Your task to perform on an android device: find snoozed emails in the gmail app Image 0: 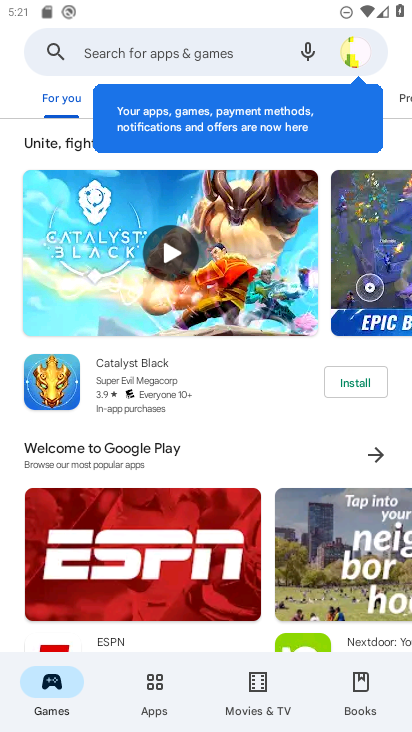
Step 0: press home button
Your task to perform on an android device: find snoozed emails in the gmail app Image 1: 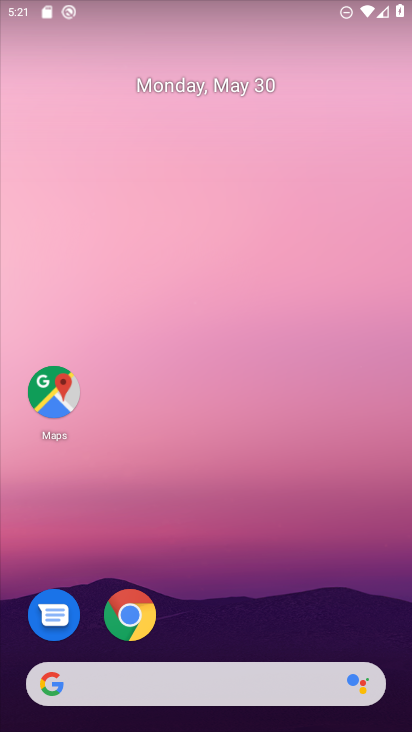
Step 1: drag from (269, 709) to (256, 209)
Your task to perform on an android device: find snoozed emails in the gmail app Image 2: 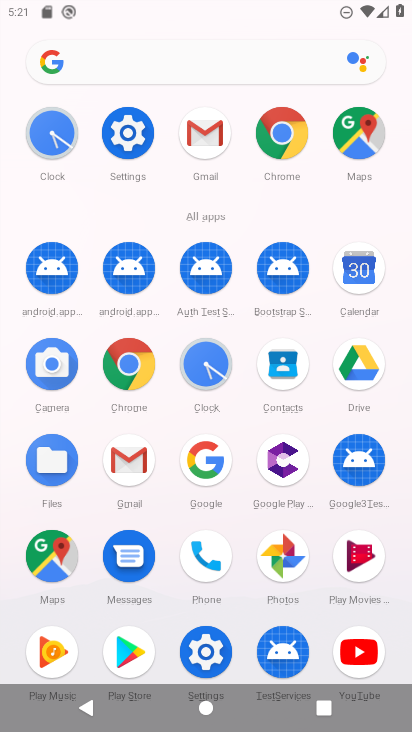
Step 2: click (201, 130)
Your task to perform on an android device: find snoozed emails in the gmail app Image 3: 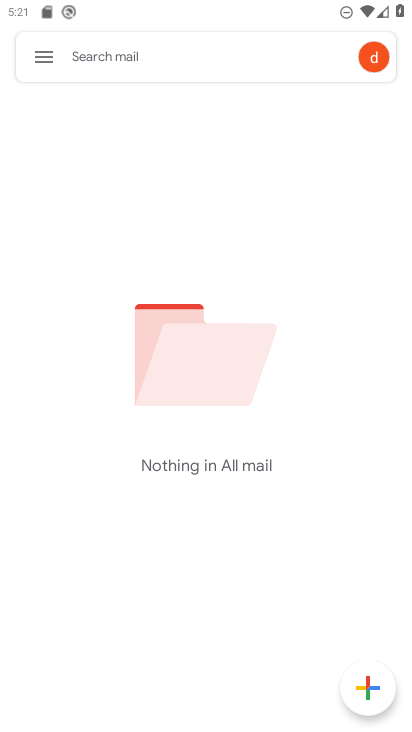
Step 3: click (39, 42)
Your task to perform on an android device: find snoozed emails in the gmail app Image 4: 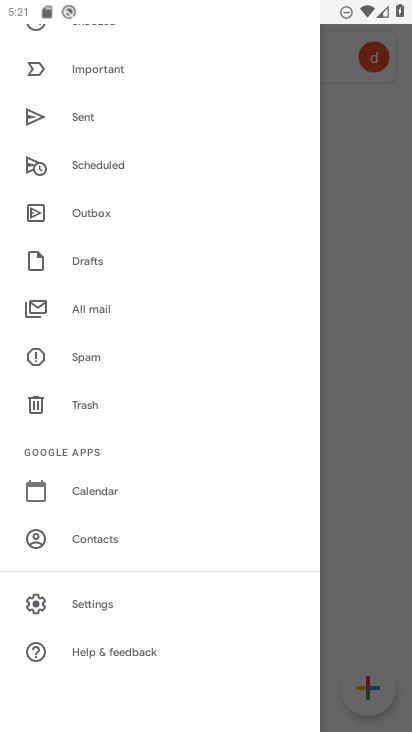
Step 4: drag from (173, 99) to (292, 548)
Your task to perform on an android device: find snoozed emails in the gmail app Image 5: 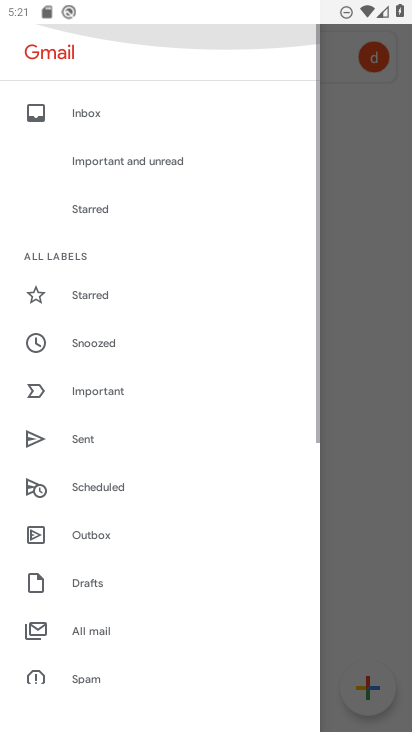
Step 5: click (292, 548)
Your task to perform on an android device: find snoozed emails in the gmail app Image 6: 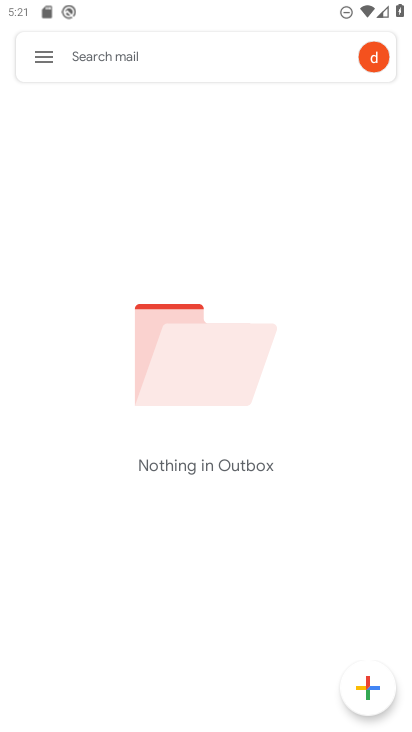
Step 6: click (25, 66)
Your task to perform on an android device: find snoozed emails in the gmail app Image 7: 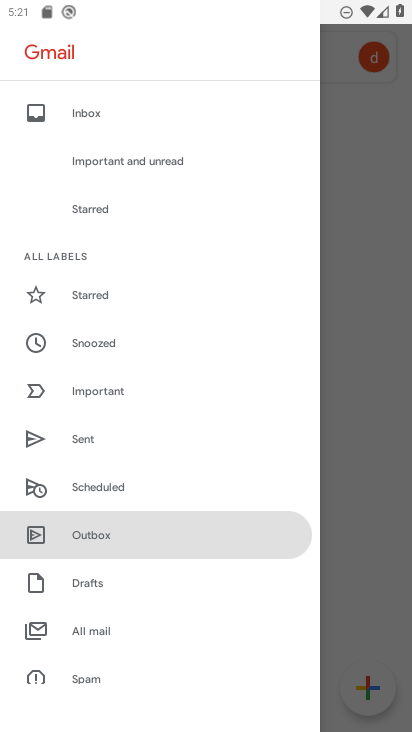
Step 7: click (140, 340)
Your task to perform on an android device: find snoozed emails in the gmail app Image 8: 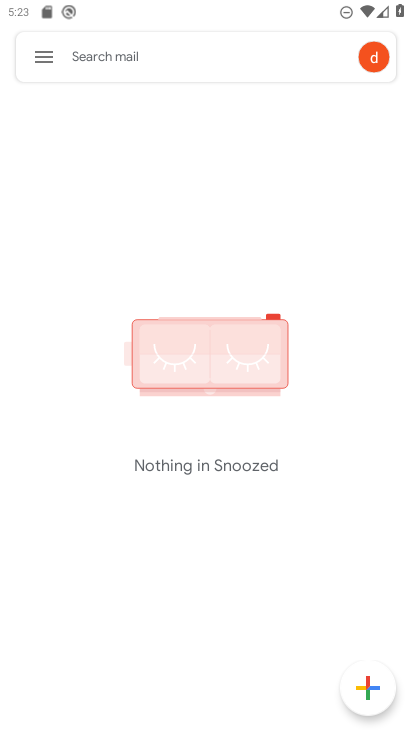
Step 8: task complete